Your task to perform on an android device: open app "Venmo" (install if not already installed), go to login, and select forgot password Image 0: 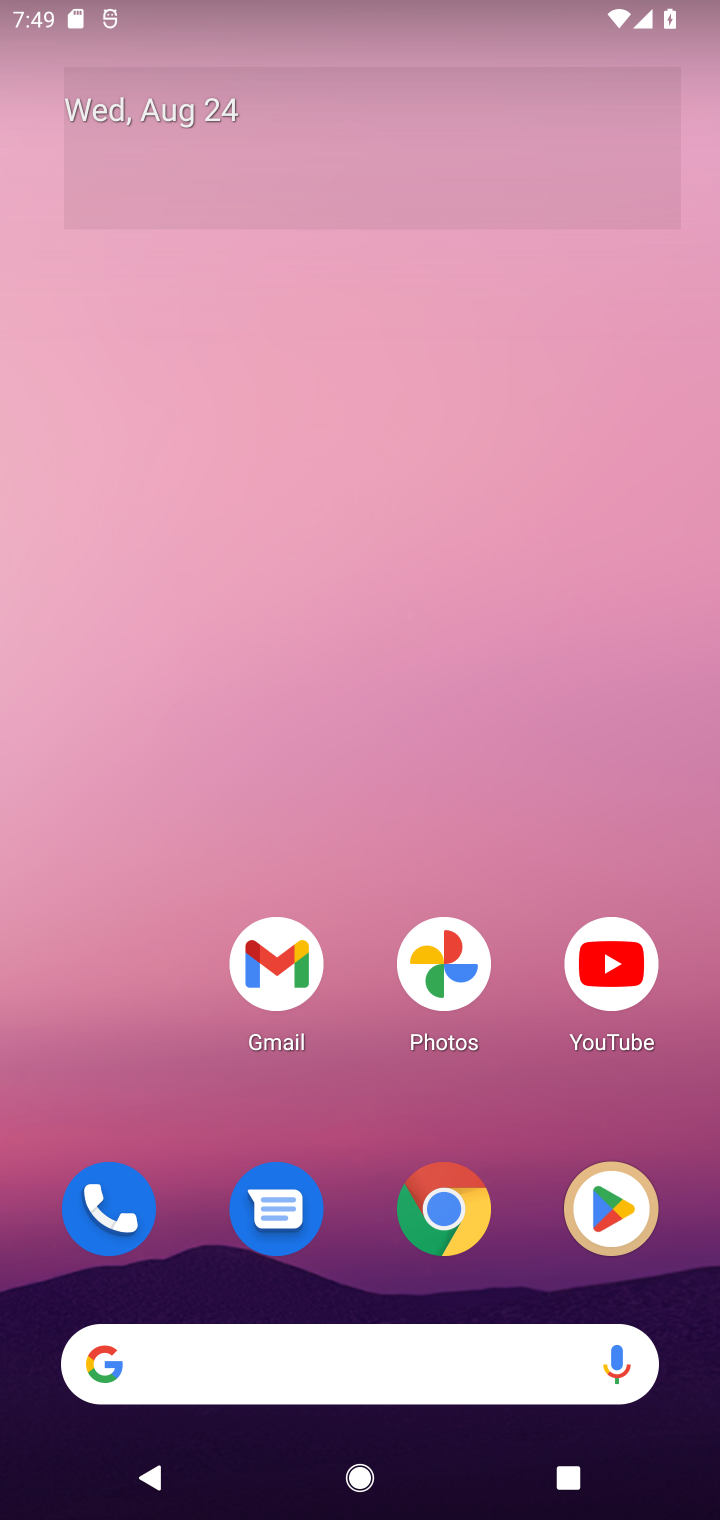
Step 0: drag from (293, 739) to (388, 445)
Your task to perform on an android device: open app "Venmo" (install if not already installed), go to login, and select forgot password Image 1: 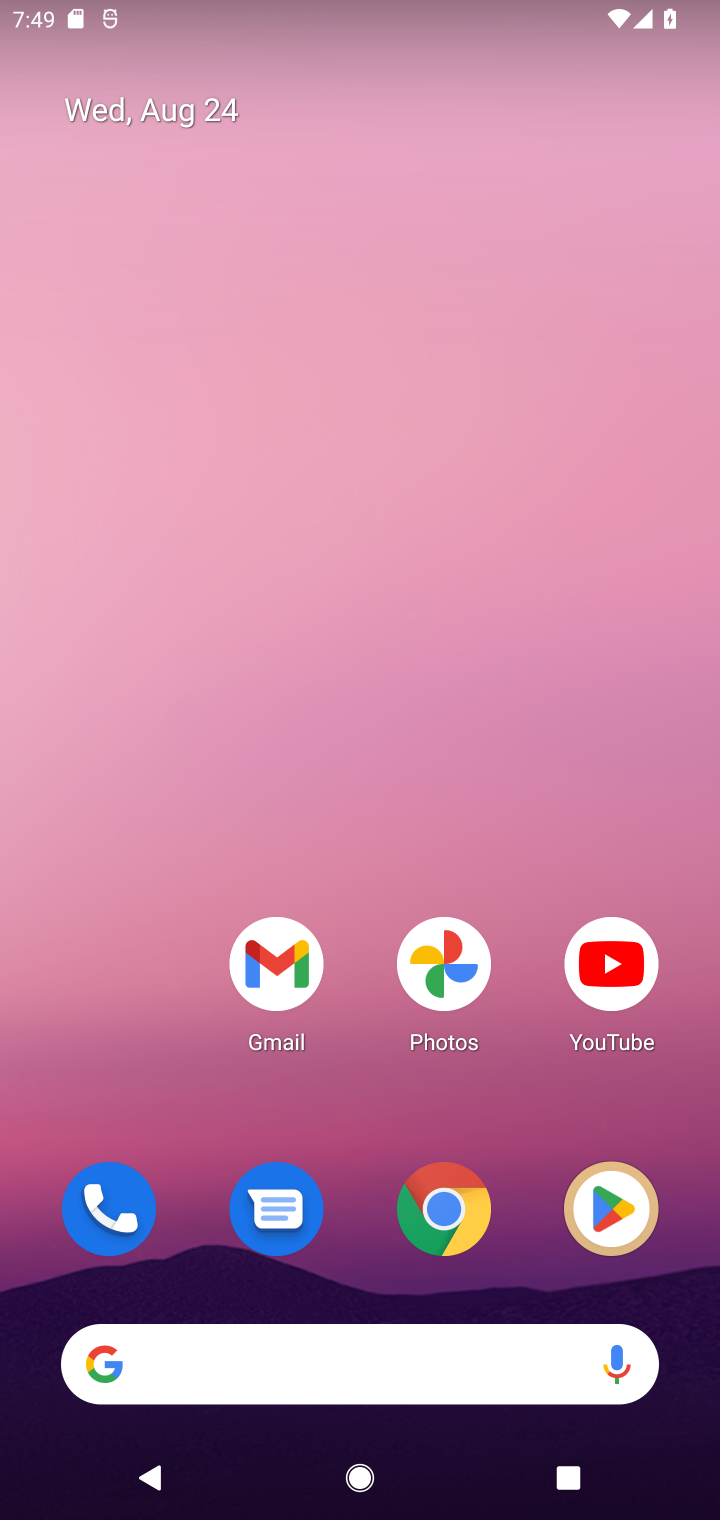
Step 1: drag from (323, 1013) to (477, 142)
Your task to perform on an android device: open app "Venmo" (install if not already installed), go to login, and select forgot password Image 2: 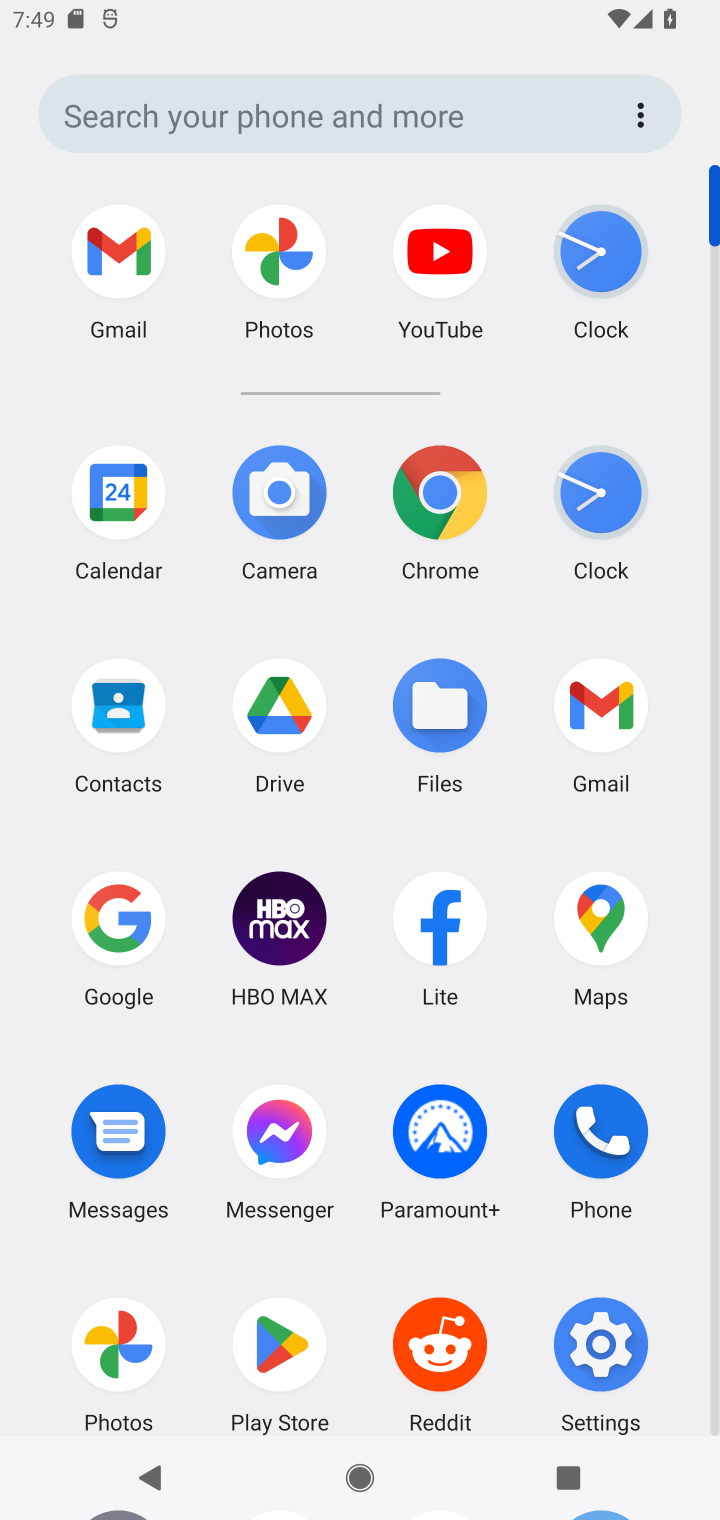
Step 2: drag from (461, 1201) to (521, 584)
Your task to perform on an android device: open app "Venmo" (install if not already installed), go to login, and select forgot password Image 3: 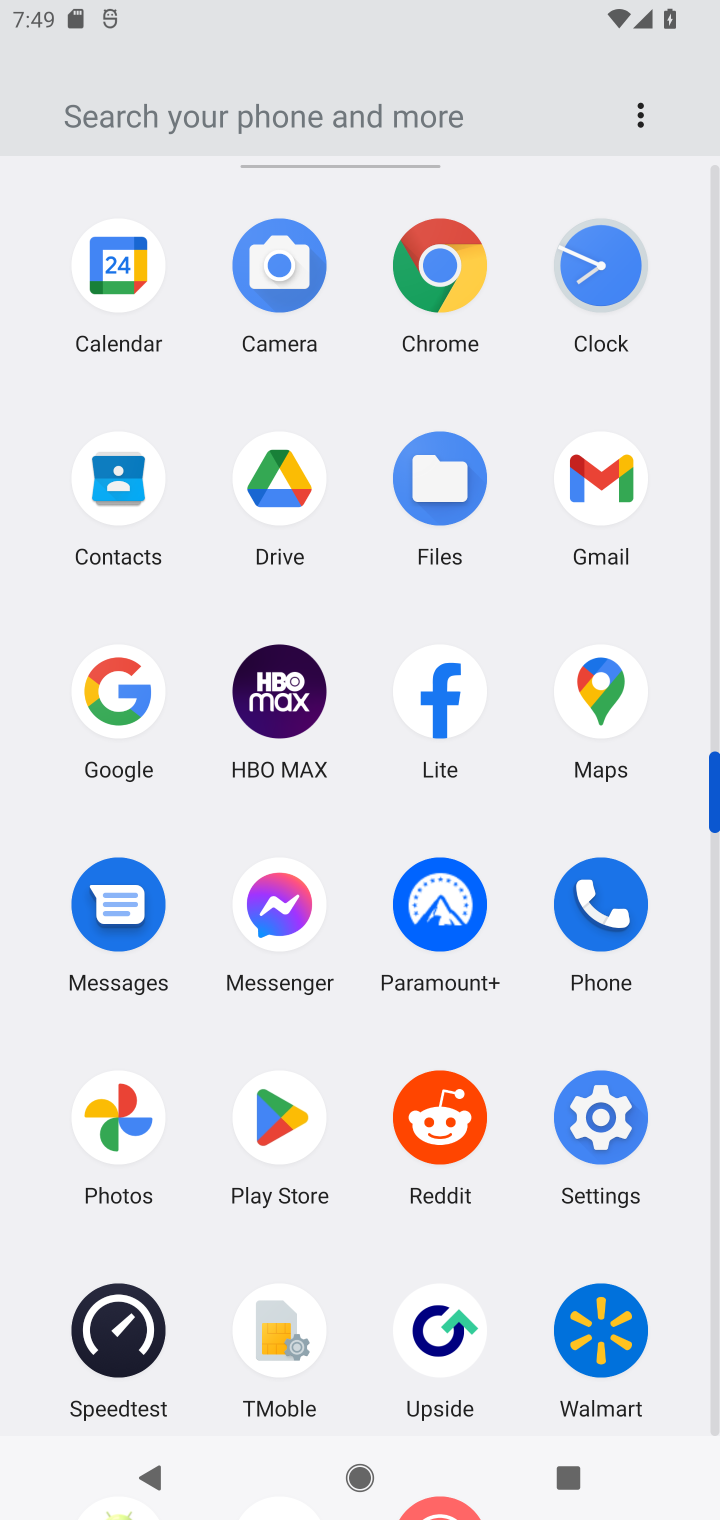
Step 3: click (295, 1132)
Your task to perform on an android device: open app "Venmo" (install if not already installed), go to login, and select forgot password Image 4: 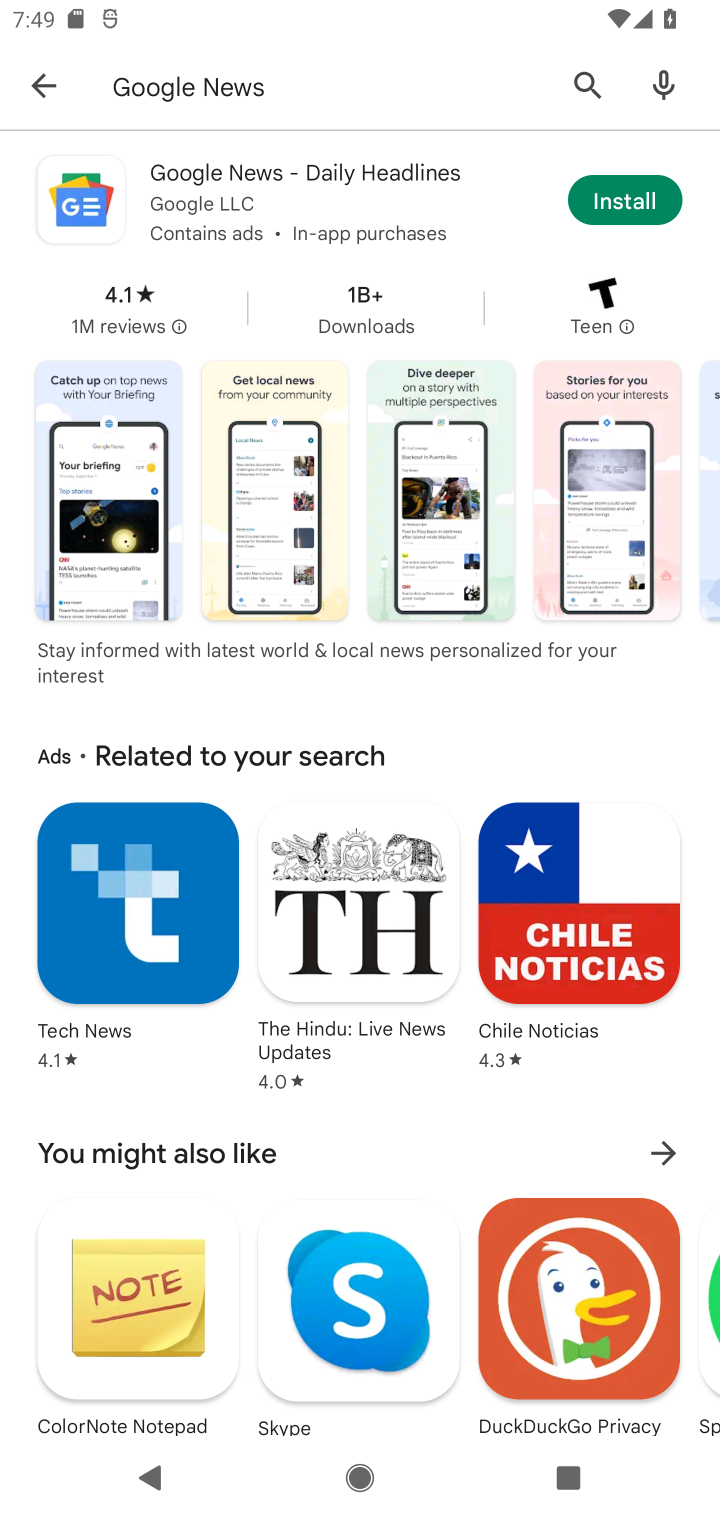
Step 4: press back button
Your task to perform on an android device: open app "Venmo" (install if not already installed), go to login, and select forgot password Image 5: 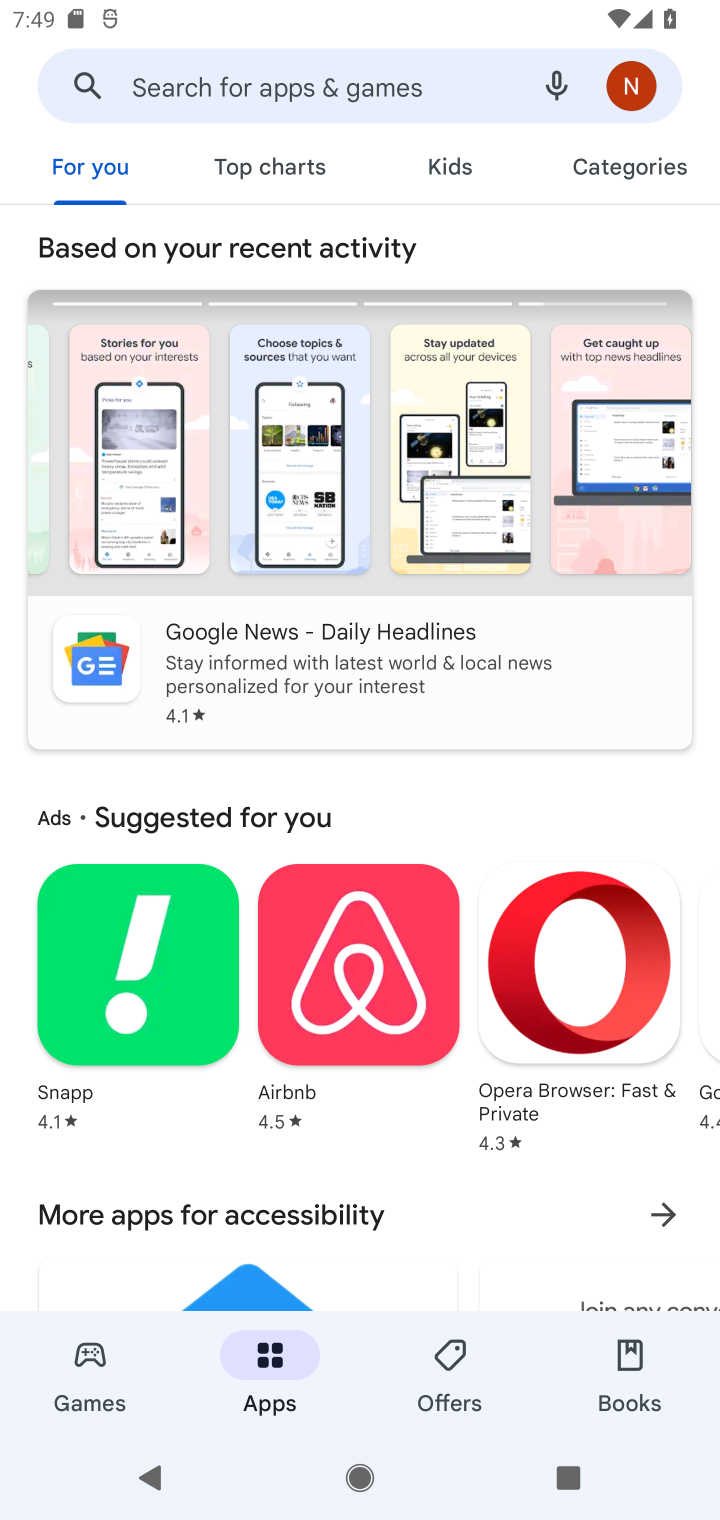
Step 5: click (332, 105)
Your task to perform on an android device: open app "Venmo" (install if not already installed), go to login, and select forgot password Image 6: 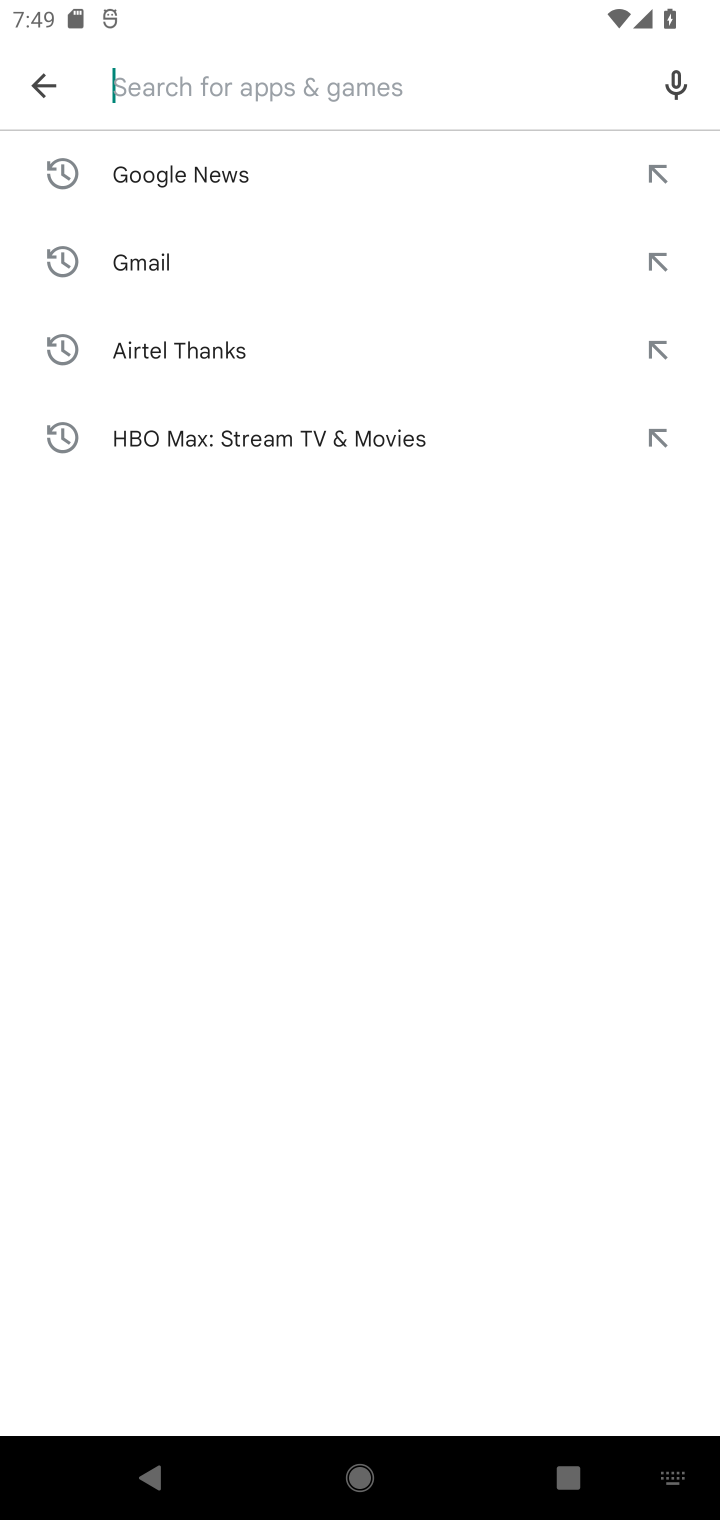
Step 6: type "Venmo"
Your task to perform on an android device: open app "Venmo" (install if not already installed), go to login, and select forgot password Image 7: 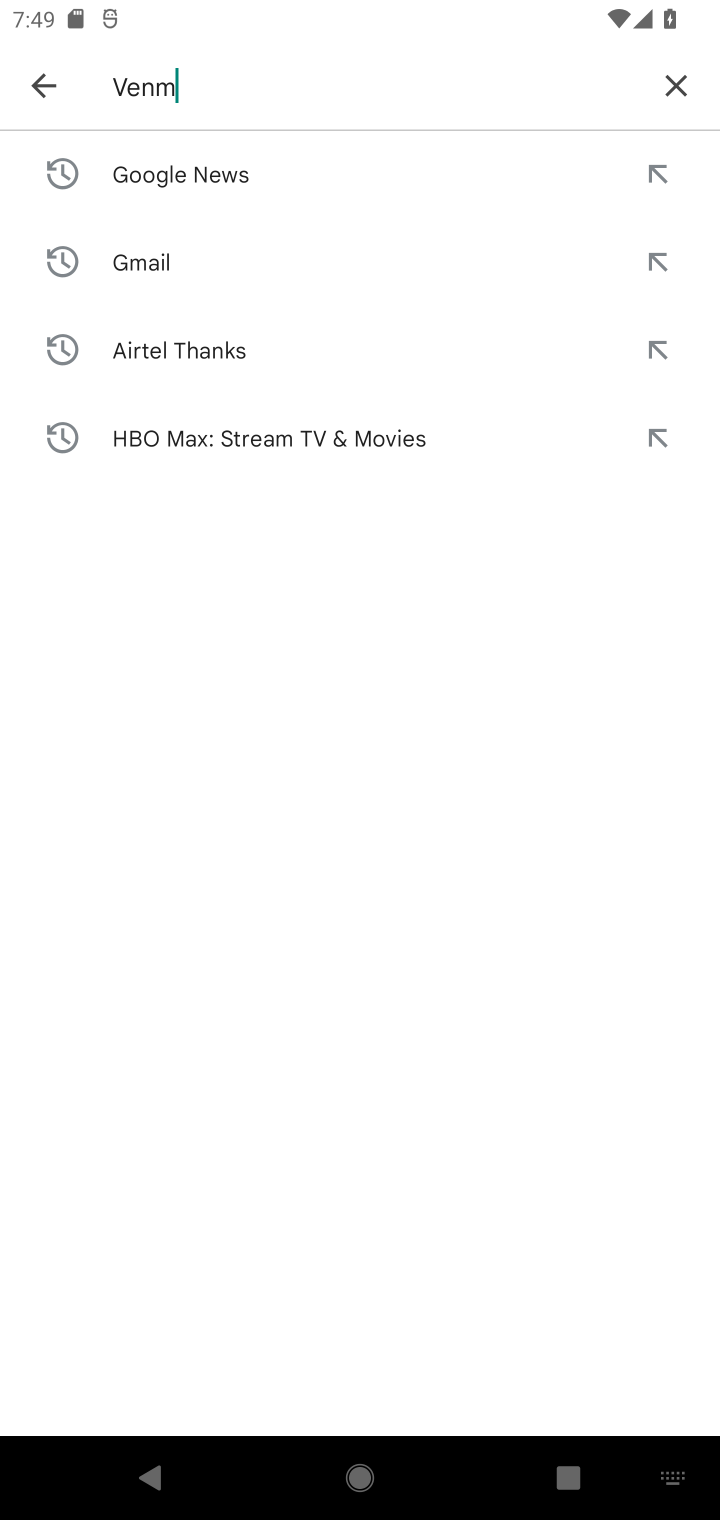
Step 7: press enter
Your task to perform on an android device: open app "Venmo" (install if not already installed), go to login, and select forgot password Image 8: 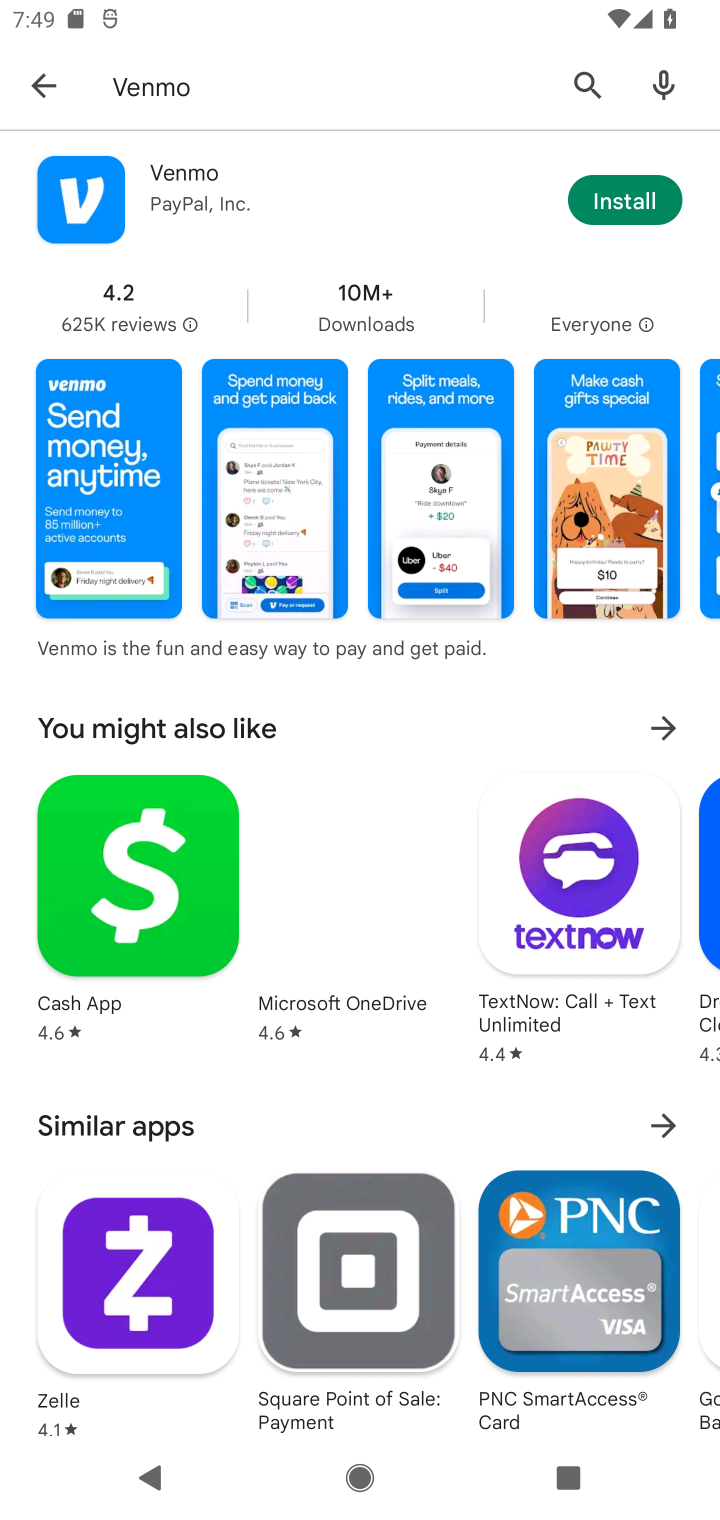
Step 8: click (644, 218)
Your task to perform on an android device: open app "Venmo" (install if not already installed), go to login, and select forgot password Image 9: 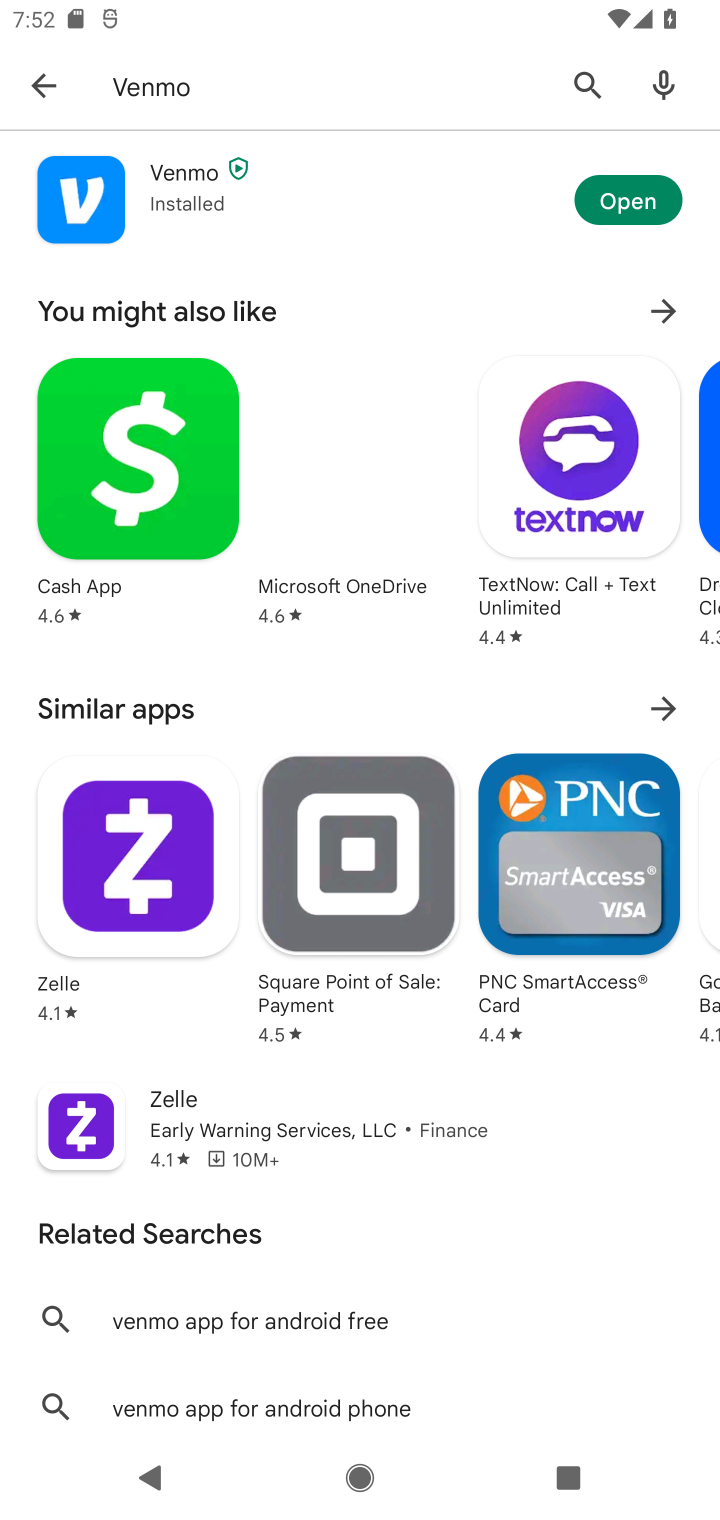
Step 9: click (625, 225)
Your task to perform on an android device: open app "Venmo" (install if not already installed), go to login, and select forgot password Image 10: 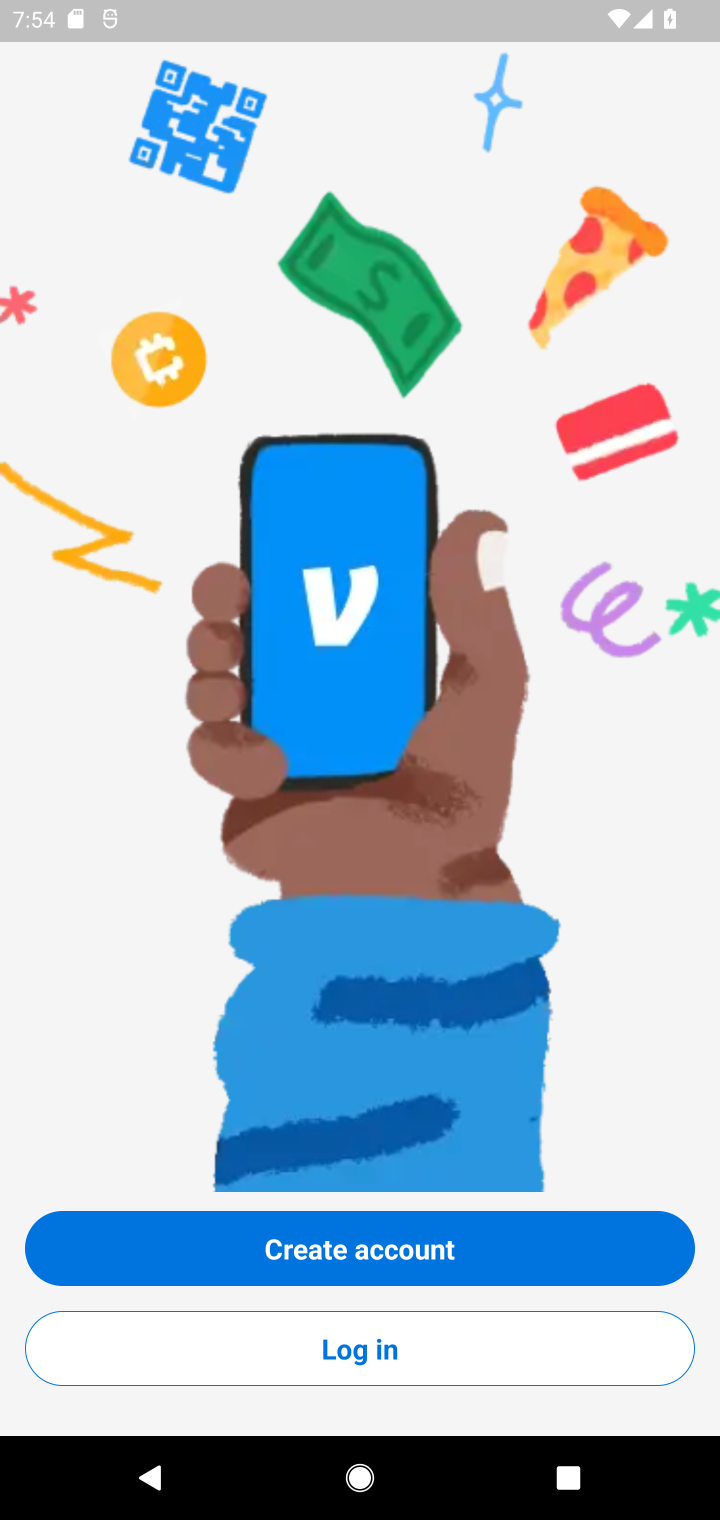
Step 10: click (412, 1360)
Your task to perform on an android device: open app "Venmo" (install if not already installed), go to login, and select forgot password Image 11: 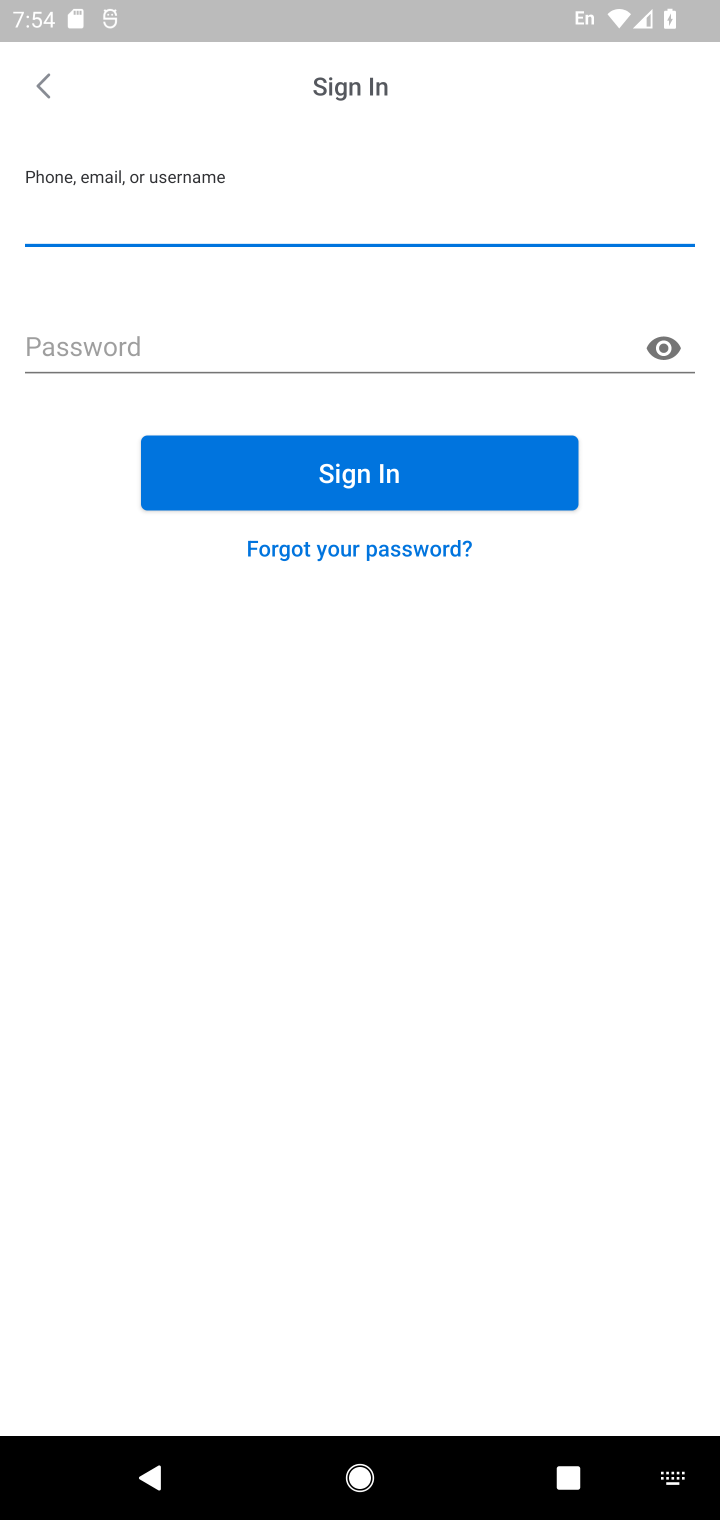
Step 11: click (302, 546)
Your task to perform on an android device: open app "Venmo" (install if not already installed), go to login, and select forgot password Image 12: 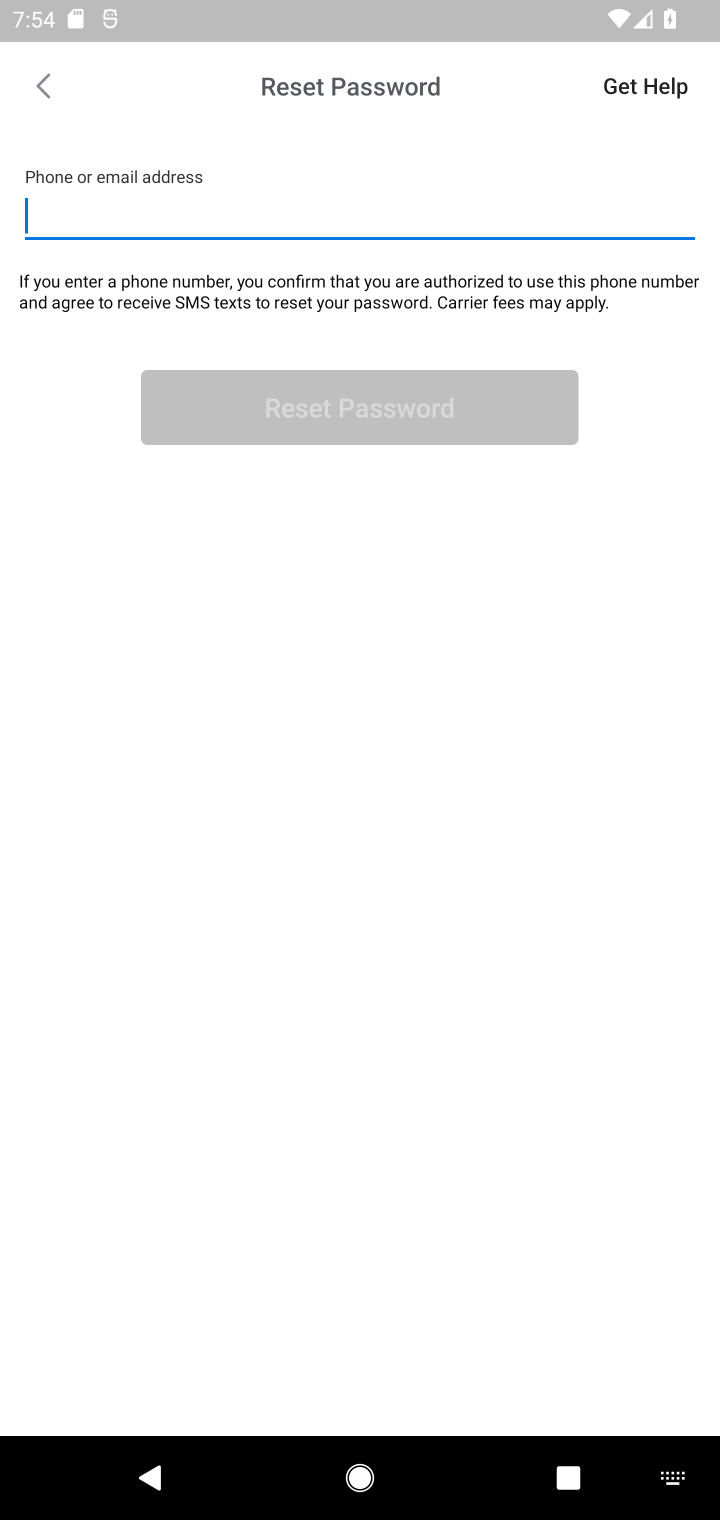
Step 12: task complete